Your task to perform on an android device: add a contact Image 0: 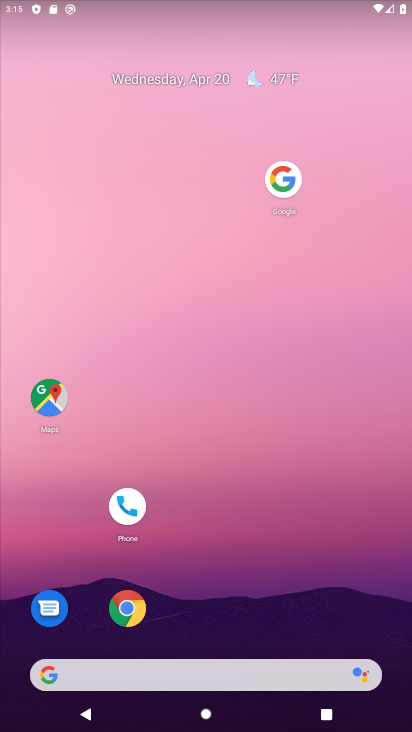
Step 0: drag from (274, 493) to (304, 103)
Your task to perform on an android device: add a contact Image 1: 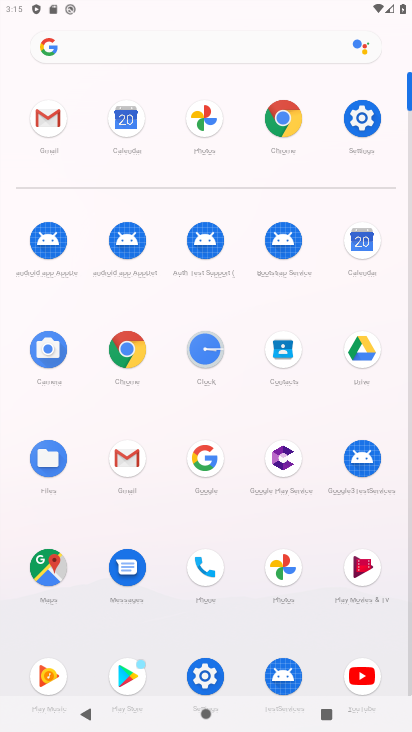
Step 1: click (290, 346)
Your task to perform on an android device: add a contact Image 2: 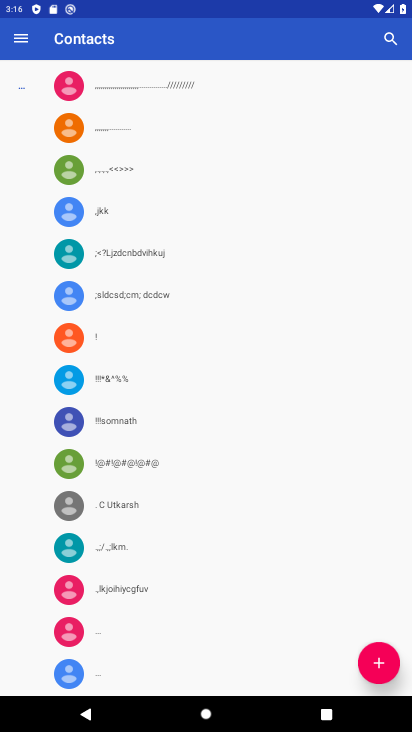
Step 2: click (373, 658)
Your task to perform on an android device: add a contact Image 3: 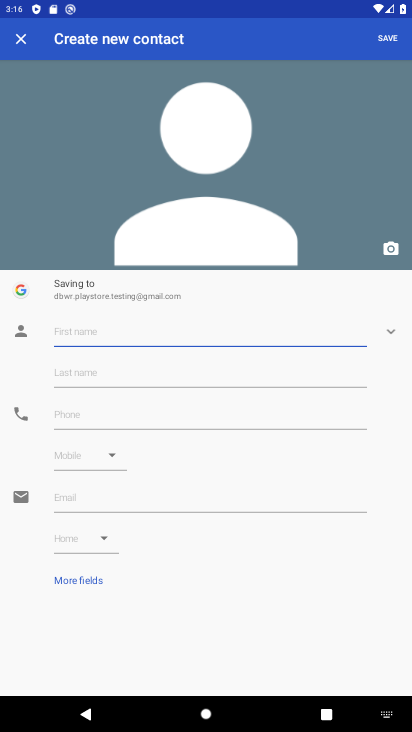
Step 3: type "zxn"
Your task to perform on an android device: add a contact Image 4: 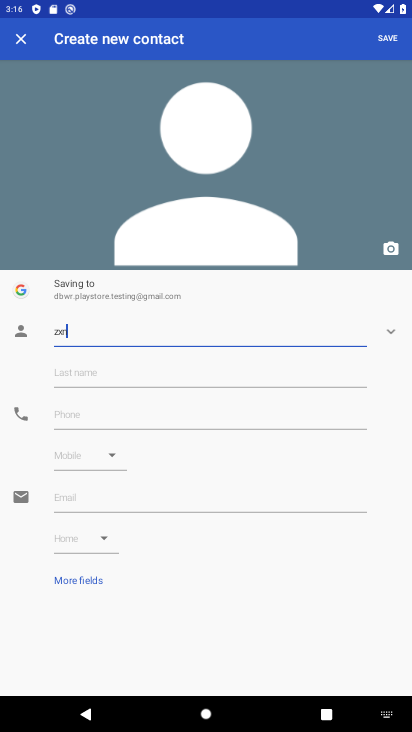
Step 4: click (390, 35)
Your task to perform on an android device: add a contact Image 5: 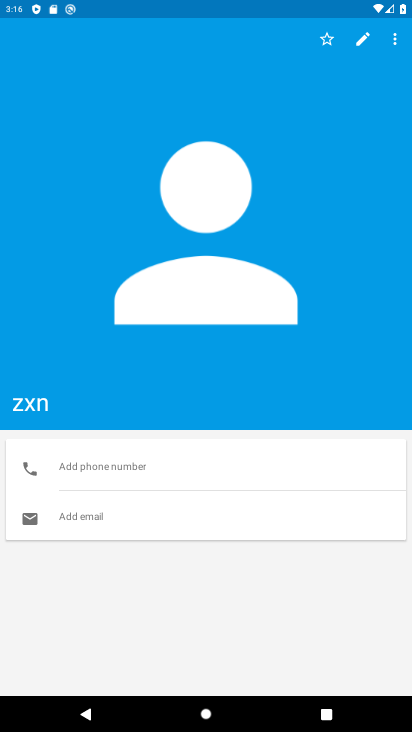
Step 5: task complete